Your task to perform on an android device: change notification settings in the gmail app Image 0: 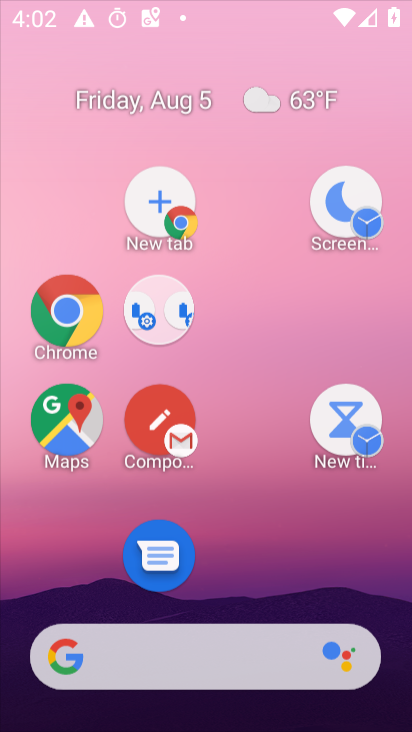
Step 0: click (269, 49)
Your task to perform on an android device: change notification settings in the gmail app Image 1: 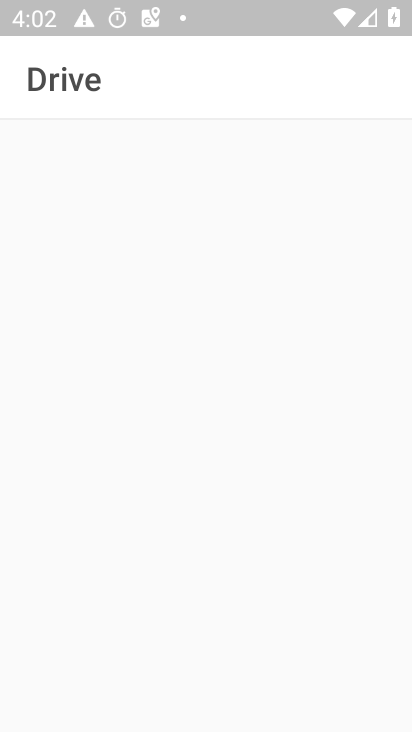
Step 1: press back button
Your task to perform on an android device: change notification settings in the gmail app Image 2: 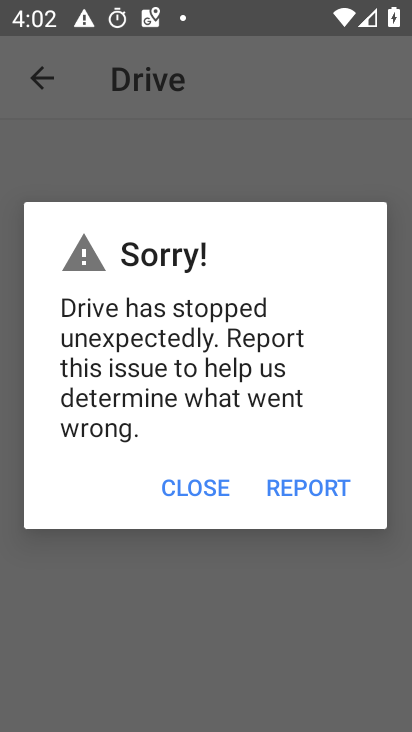
Step 2: press back button
Your task to perform on an android device: change notification settings in the gmail app Image 3: 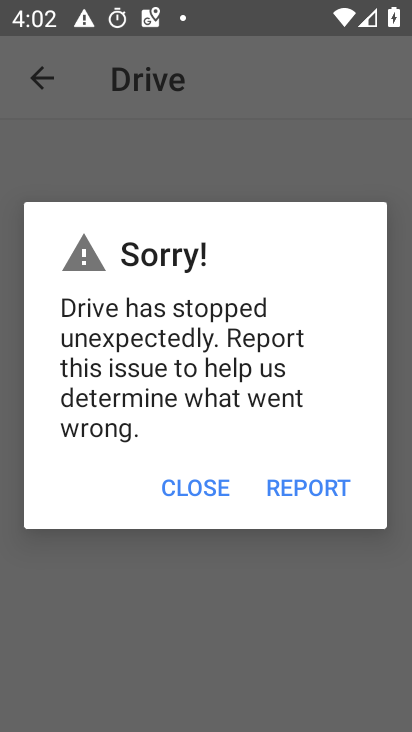
Step 3: click (175, 479)
Your task to perform on an android device: change notification settings in the gmail app Image 4: 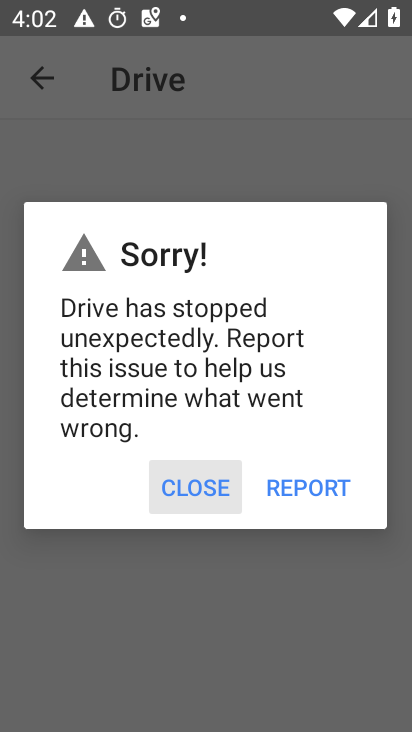
Step 4: click (184, 479)
Your task to perform on an android device: change notification settings in the gmail app Image 5: 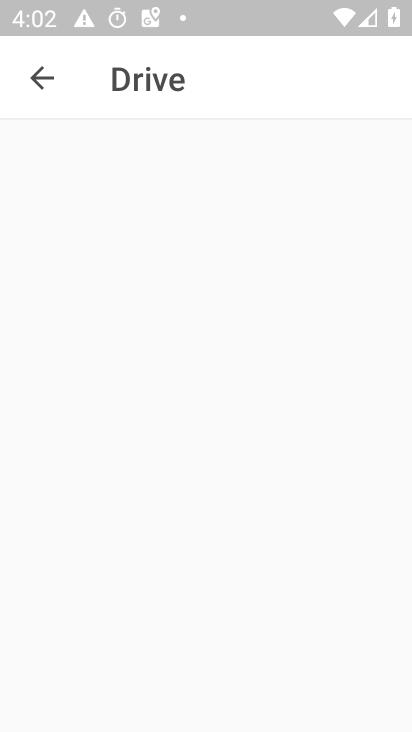
Step 5: click (191, 479)
Your task to perform on an android device: change notification settings in the gmail app Image 6: 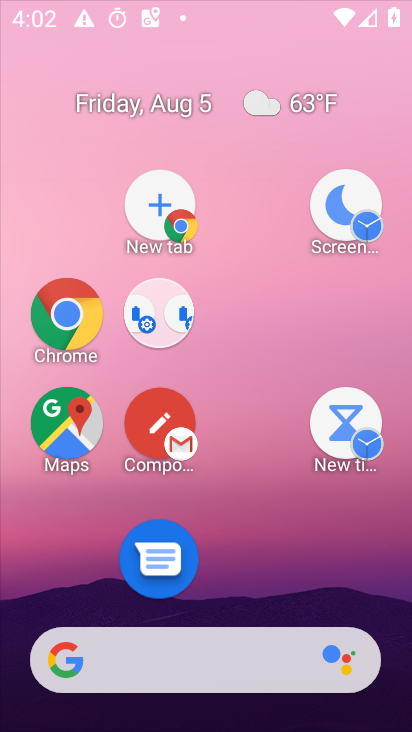
Step 6: click (193, 481)
Your task to perform on an android device: change notification settings in the gmail app Image 7: 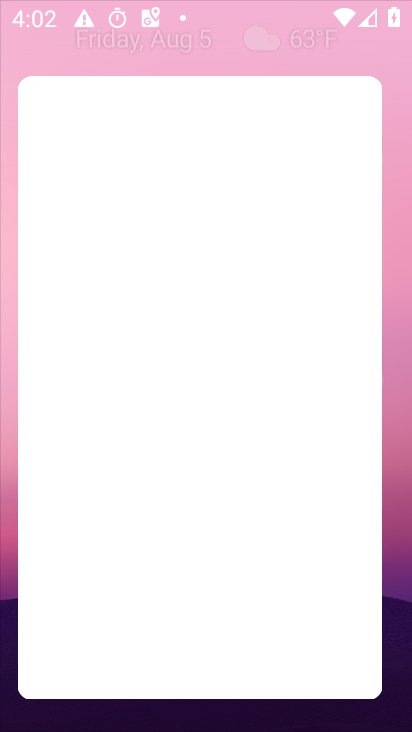
Step 7: drag from (277, 442) to (251, 228)
Your task to perform on an android device: change notification settings in the gmail app Image 8: 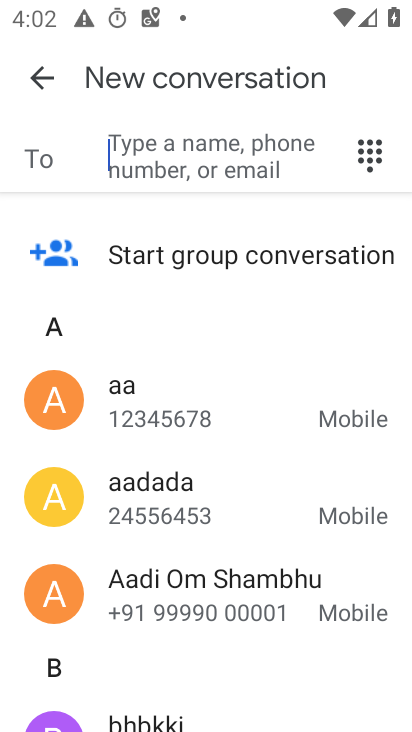
Step 8: press back button
Your task to perform on an android device: change notification settings in the gmail app Image 9: 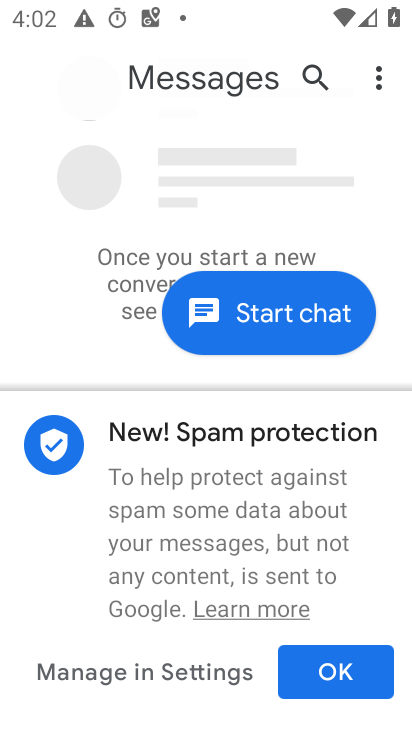
Step 9: press home button
Your task to perform on an android device: change notification settings in the gmail app Image 10: 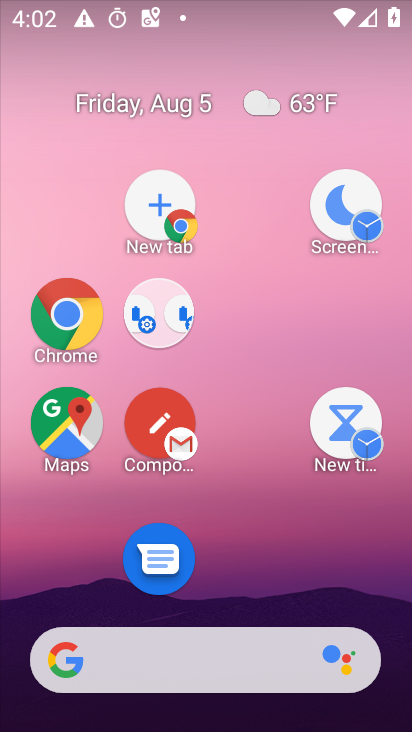
Step 10: drag from (248, 551) to (260, 282)
Your task to perform on an android device: change notification settings in the gmail app Image 11: 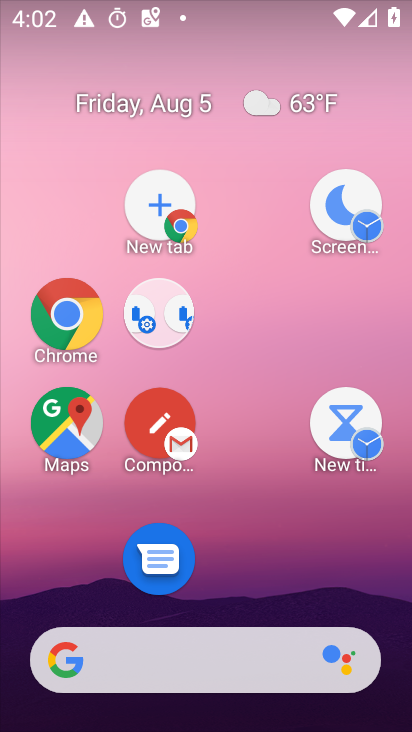
Step 11: drag from (231, 634) to (148, 196)
Your task to perform on an android device: change notification settings in the gmail app Image 12: 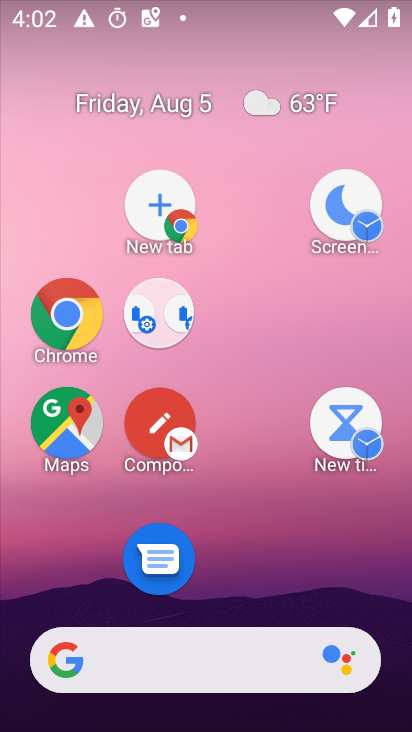
Step 12: drag from (179, 301) to (179, 218)
Your task to perform on an android device: change notification settings in the gmail app Image 13: 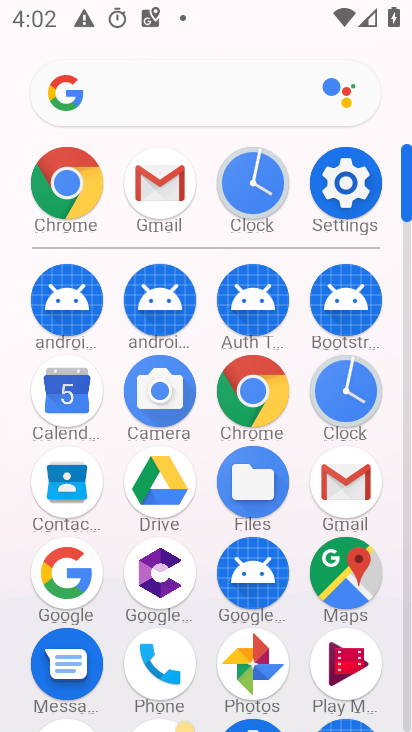
Step 13: drag from (279, 493) to (279, 245)
Your task to perform on an android device: change notification settings in the gmail app Image 14: 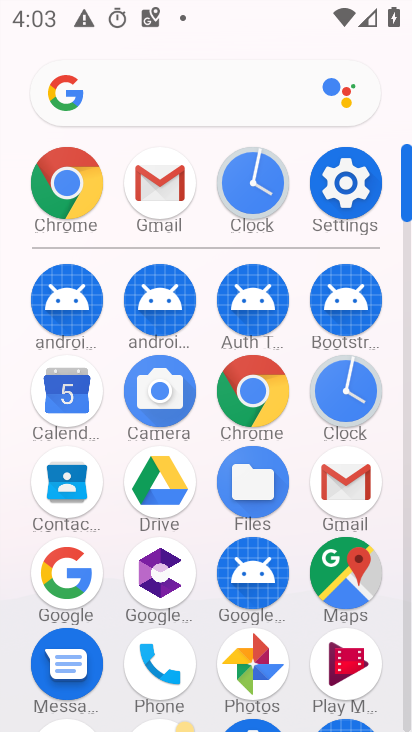
Step 14: click (143, 197)
Your task to perform on an android device: change notification settings in the gmail app Image 15: 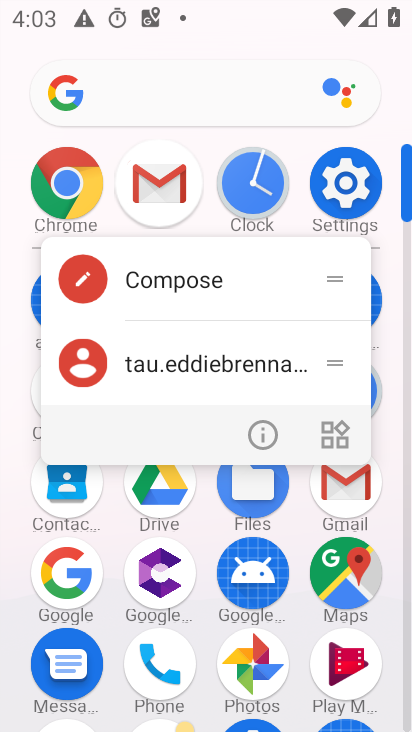
Step 15: click (144, 198)
Your task to perform on an android device: change notification settings in the gmail app Image 16: 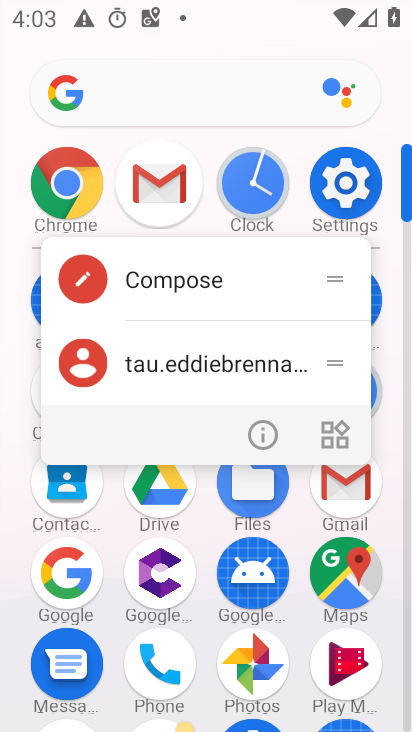
Step 16: click (153, 191)
Your task to perform on an android device: change notification settings in the gmail app Image 17: 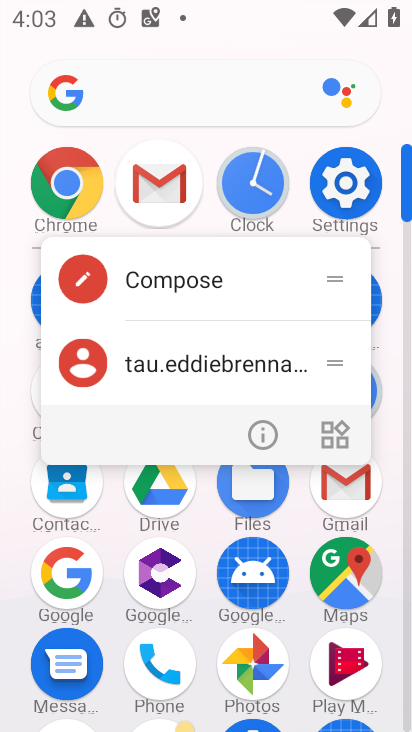
Step 17: click (158, 184)
Your task to perform on an android device: change notification settings in the gmail app Image 18: 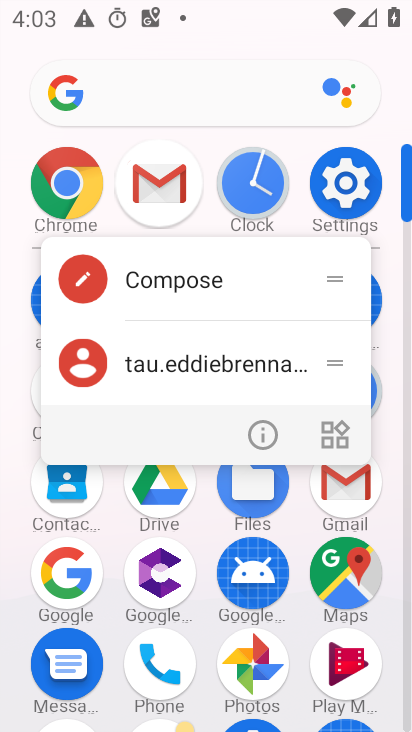
Step 18: click (150, 193)
Your task to perform on an android device: change notification settings in the gmail app Image 19: 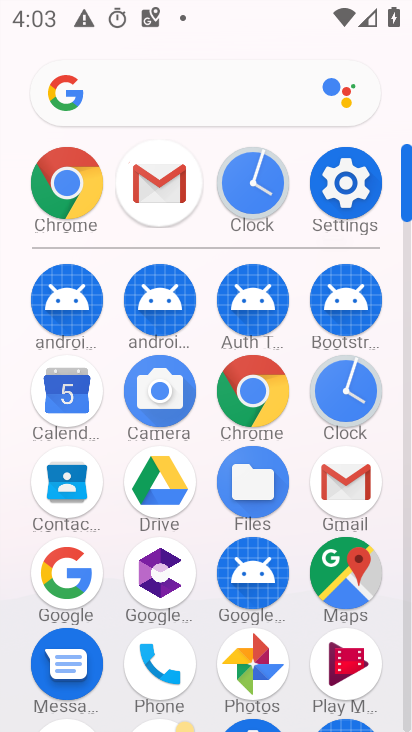
Step 19: click (152, 200)
Your task to perform on an android device: change notification settings in the gmail app Image 20: 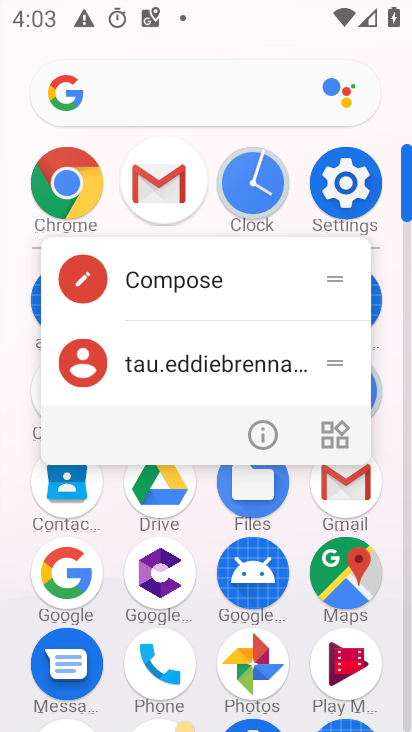
Step 20: click (170, 183)
Your task to perform on an android device: change notification settings in the gmail app Image 21: 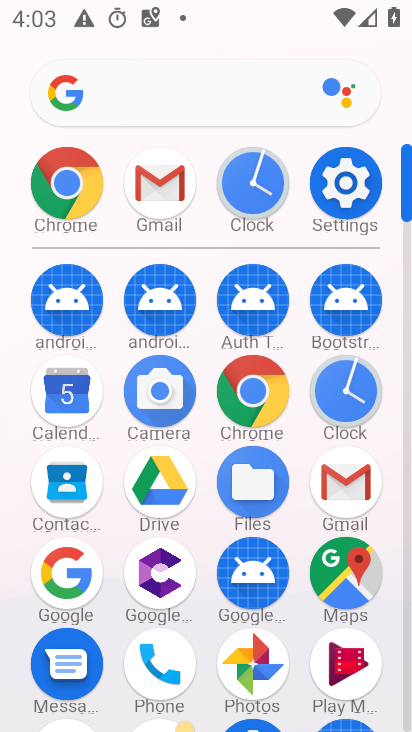
Step 21: click (156, 192)
Your task to perform on an android device: change notification settings in the gmail app Image 22: 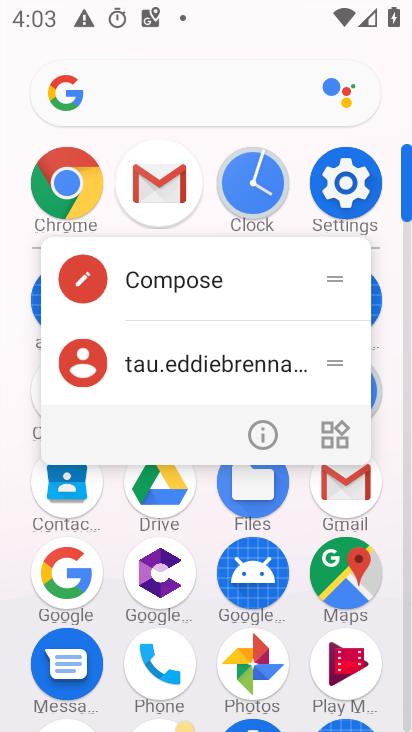
Step 22: click (158, 189)
Your task to perform on an android device: change notification settings in the gmail app Image 23: 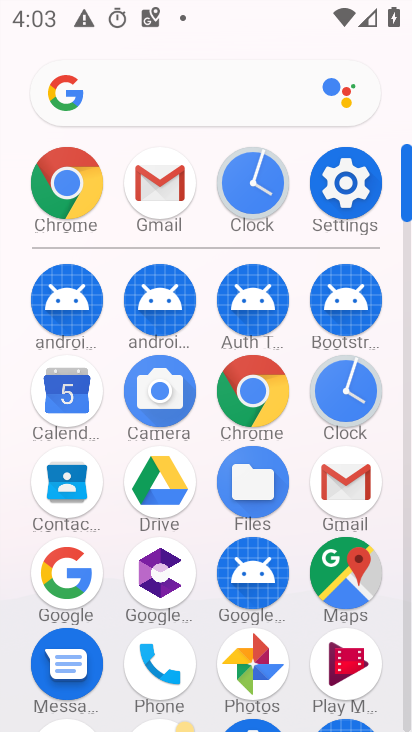
Step 23: click (158, 189)
Your task to perform on an android device: change notification settings in the gmail app Image 24: 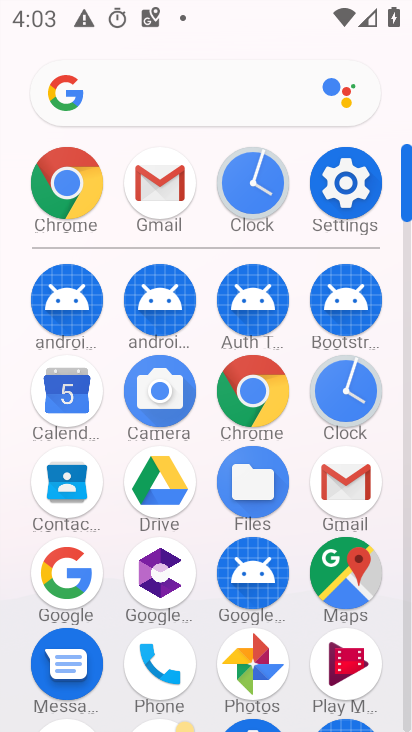
Step 24: click (158, 189)
Your task to perform on an android device: change notification settings in the gmail app Image 25: 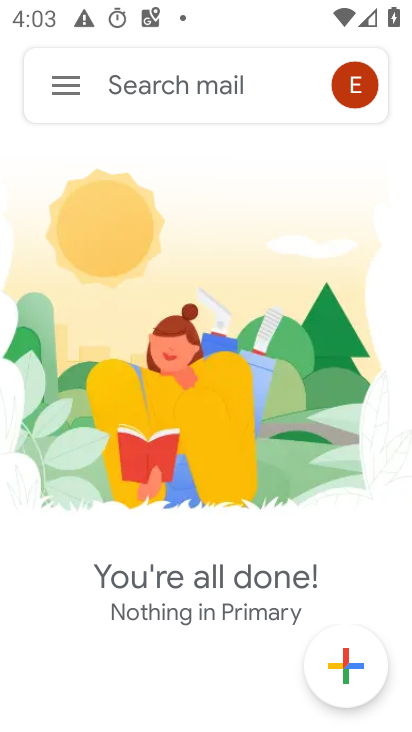
Step 25: click (54, 90)
Your task to perform on an android device: change notification settings in the gmail app Image 26: 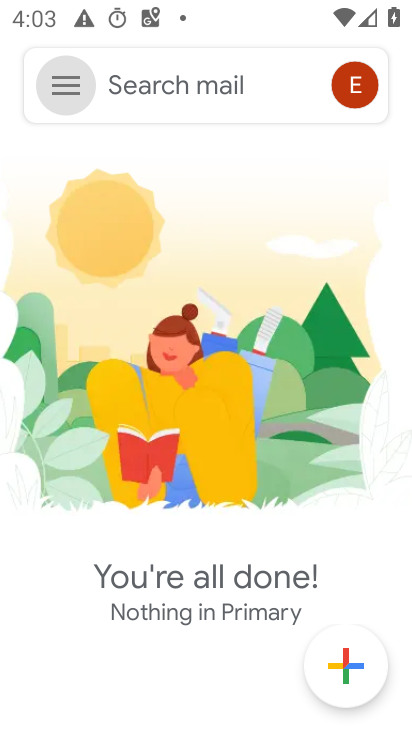
Step 26: drag from (73, 114) to (129, 550)
Your task to perform on an android device: change notification settings in the gmail app Image 27: 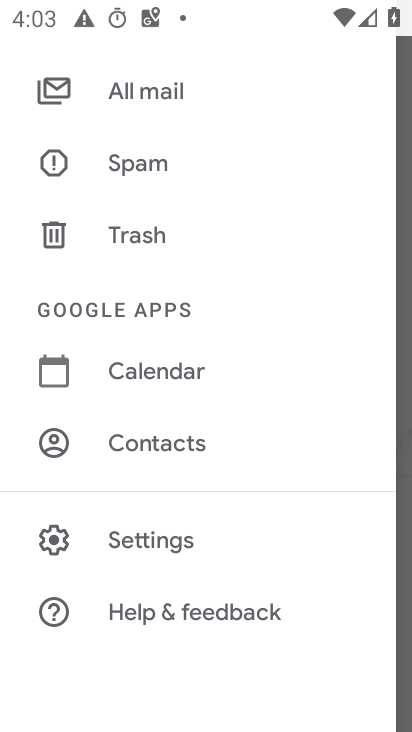
Step 27: click (145, 538)
Your task to perform on an android device: change notification settings in the gmail app Image 28: 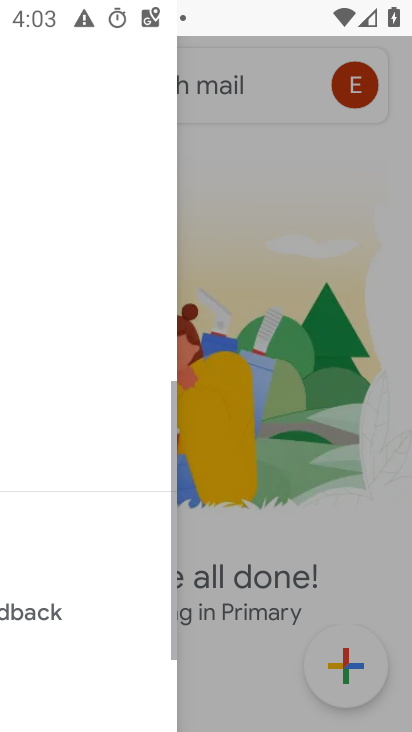
Step 28: click (145, 537)
Your task to perform on an android device: change notification settings in the gmail app Image 29: 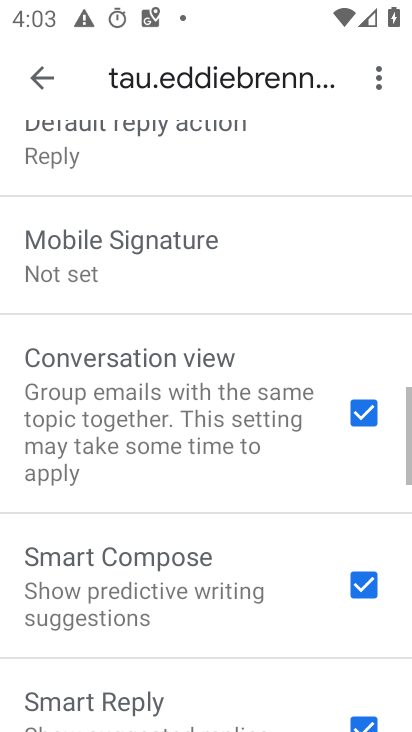
Step 29: drag from (141, 576) to (115, 130)
Your task to perform on an android device: change notification settings in the gmail app Image 30: 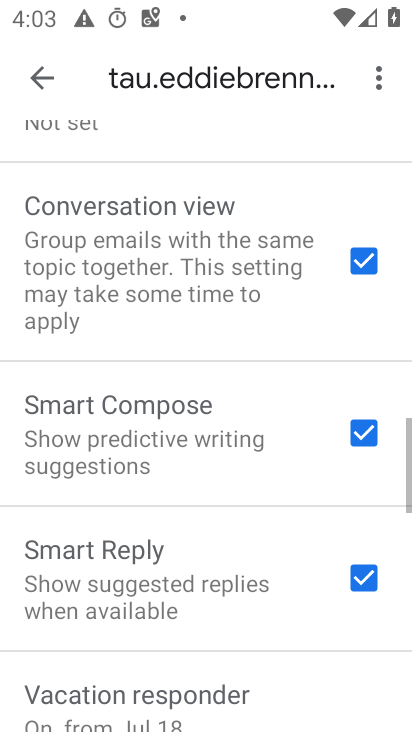
Step 30: drag from (166, 456) to (161, 142)
Your task to perform on an android device: change notification settings in the gmail app Image 31: 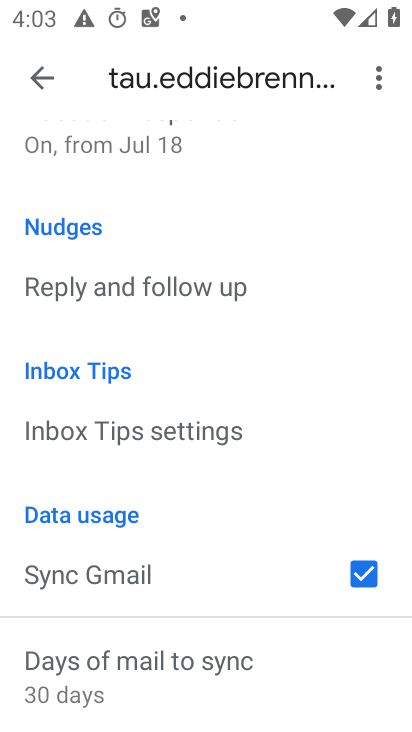
Step 31: click (114, 569)
Your task to perform on an android device: change notification settings in the gmail app Image 32: 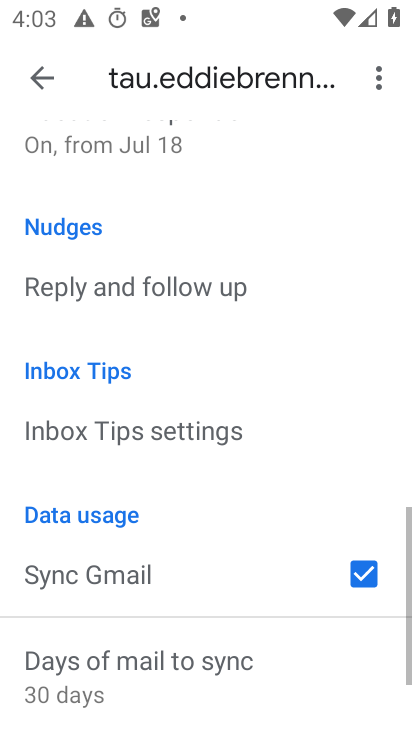
Step 32: click (110, 545)
Your task to perform on an android device: change notification settings in the gmail app Image 33: 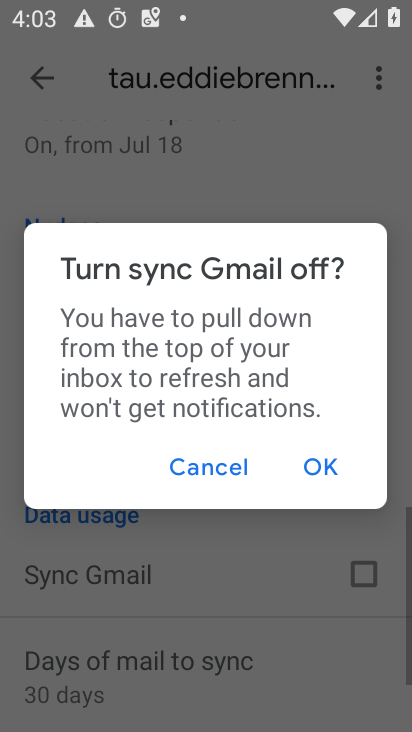
Step 33: drag from (79, 285) to (123, 549)
Your task to perform on an android device: change notification settings in the gmail app Image 34: 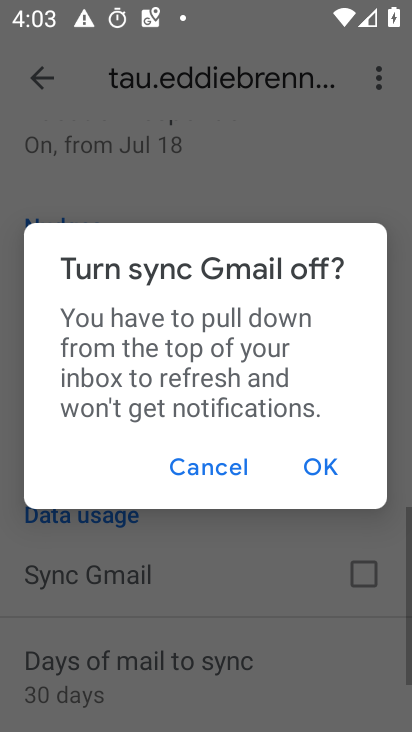
Step 34: click (123, 336)
Your task to perform on an android device: change notification settings in the gmail app Image 35: 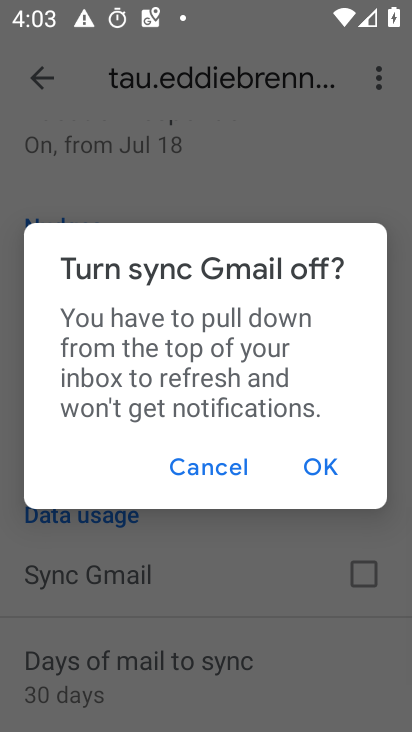
Step 35: click (206, 474)
Your task to perform on an android device: change notification settings in the gmail app Image 36: 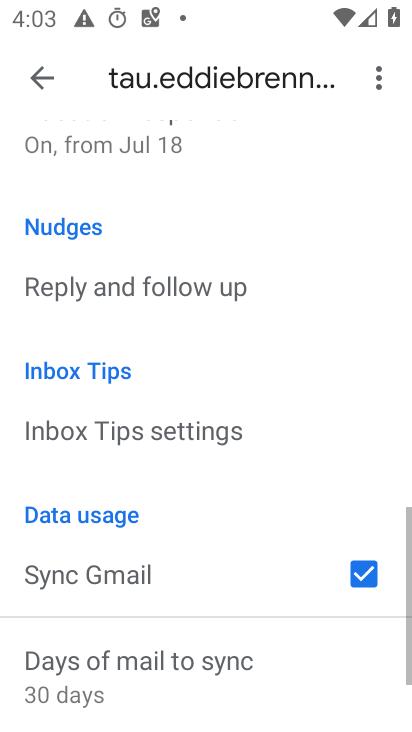
Step 36: drag from (137, 237) to (171, 612)
Your task to perform on an android device: change notification settings in the gmail app Image 37: 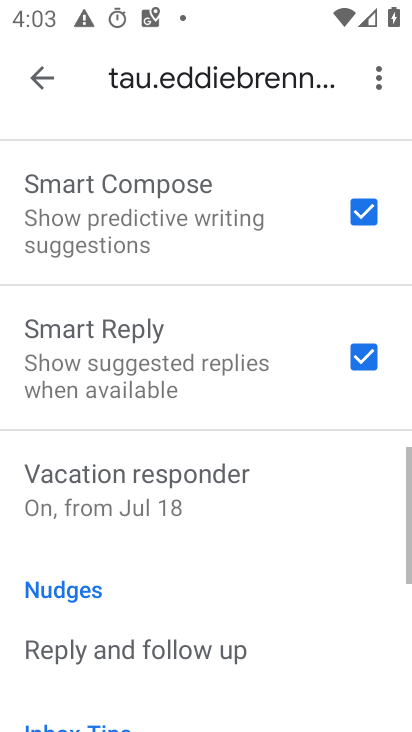
Step 37: drag from (102, 265) to (151, 501)
Your task to perform on an android device: change notification settings in the gmail app Image 38: 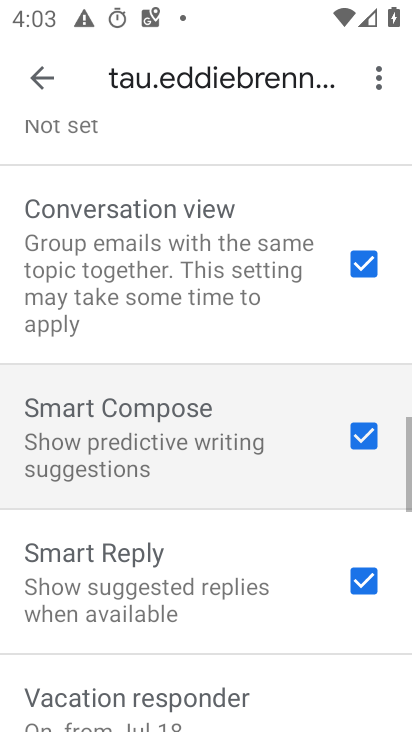
Step 38: drag from (171, 241) to (193, 547)
Your task to perform on an android device: change notification settings in the gmail app Image 39: 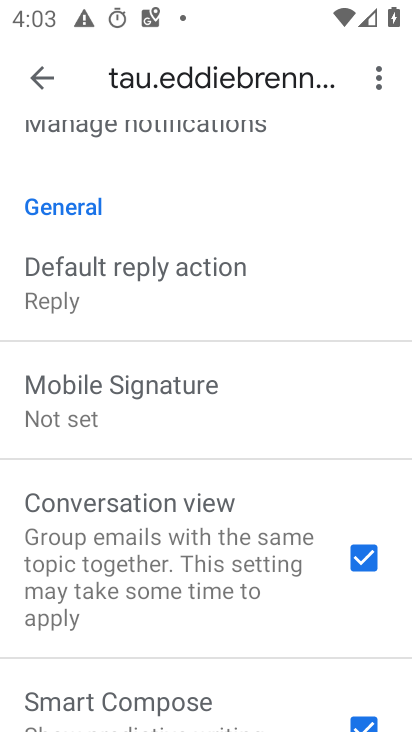
Step 39: drag from (127, 575) to (111, 304)
Your task to perform on an android device: change notification settings in the gmail app Image 40: 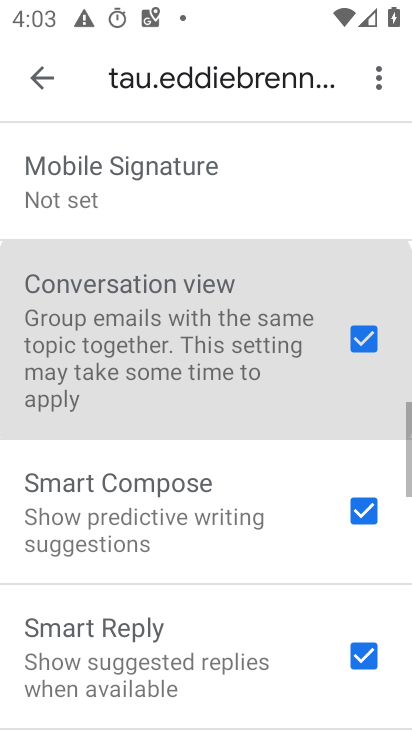
Step 40: drag from (146, 557) to (142, 389)
Your task to perform on an android device: change notification settings in the gmail app Image 41: 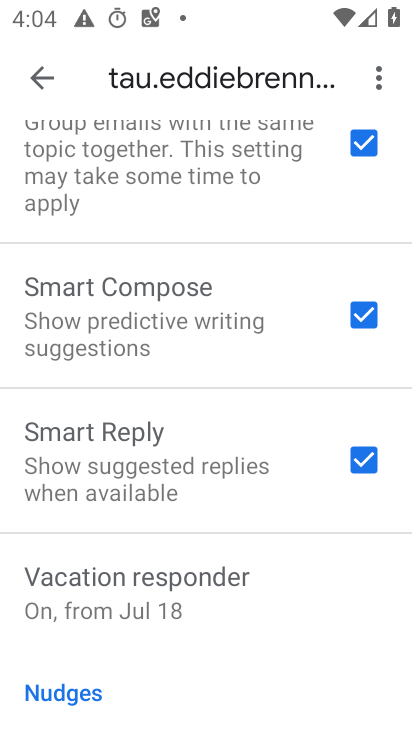
Step 41: drag from (128, 241) to (155, 556)
Your task to perform on an android device: change notification settings in the gmail app Image 42: 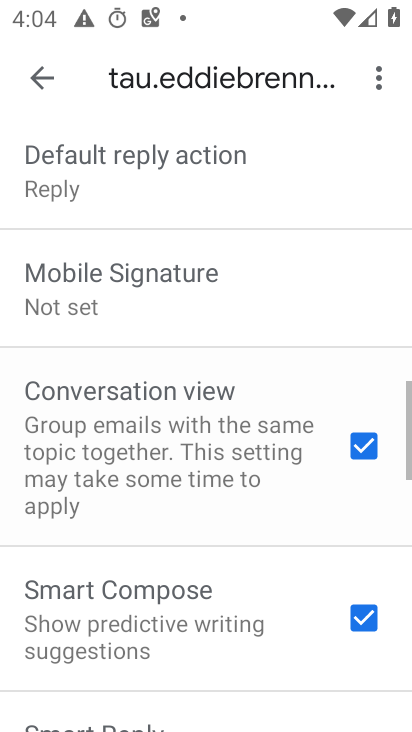
Step 42: drag from (82, 313) to (142, 663)
Your task to perform on an android device: change notification settings in the gmail app Image 43: 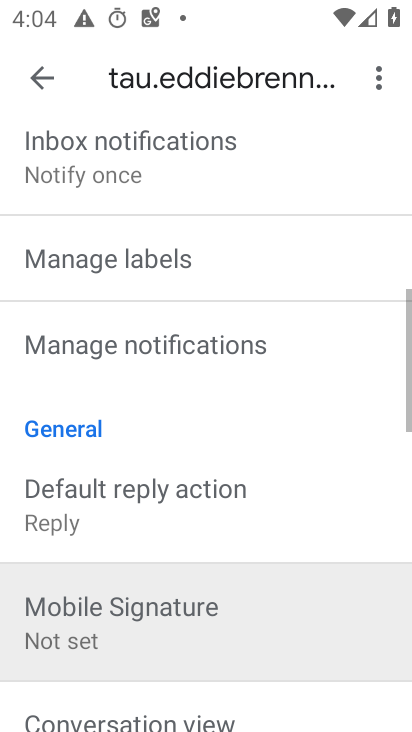
Step 43: drag from (99, 319) to (146, 579)
Your task to perform on an android device: change notification settings in the gmail app Image 44: 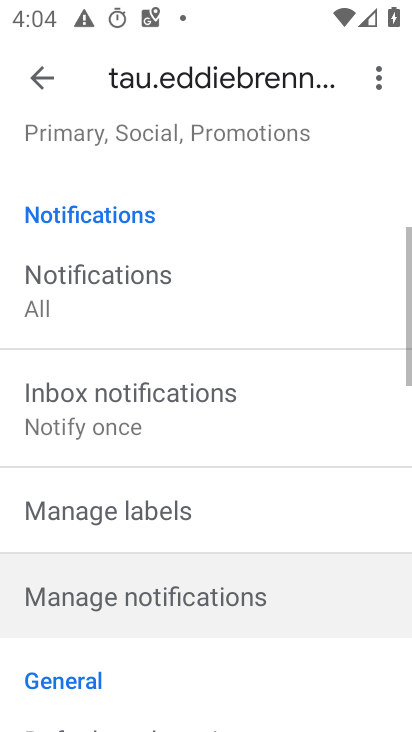
Step 44: drag from (146, 265) to (248, 580)
Your task to perform on an android device: change notification settings in the gmail app Image 45: 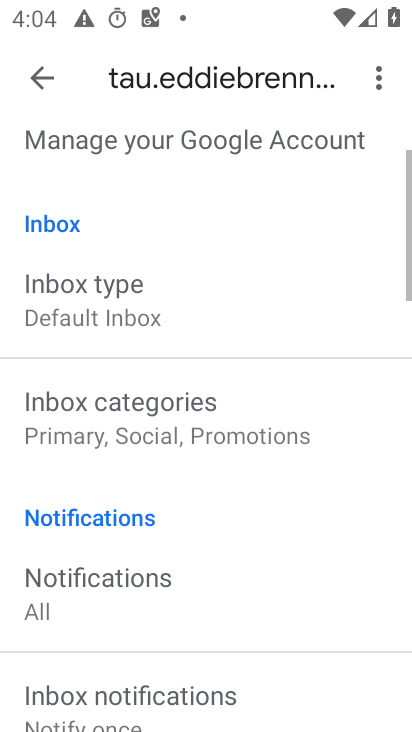
Step 45: drag from (150, 279) to (179, 616)
Your task to perform on an android device: change notification settings in the gmail app Image 46: 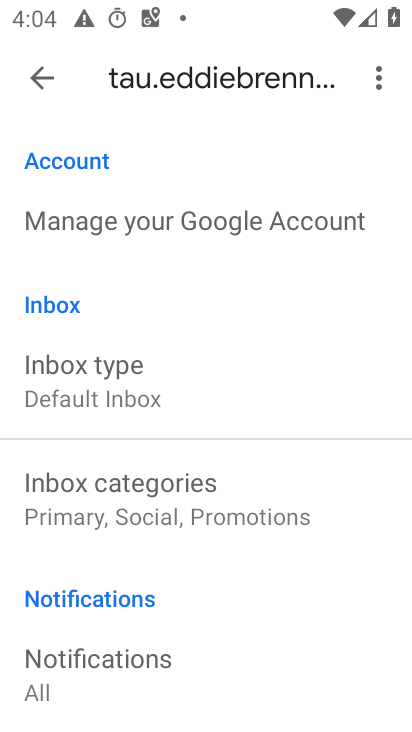
Step 46: drag from (96, 274) to (113, 623)
Your task to perform on an android device: change notification settings in the gmail app Image 47: 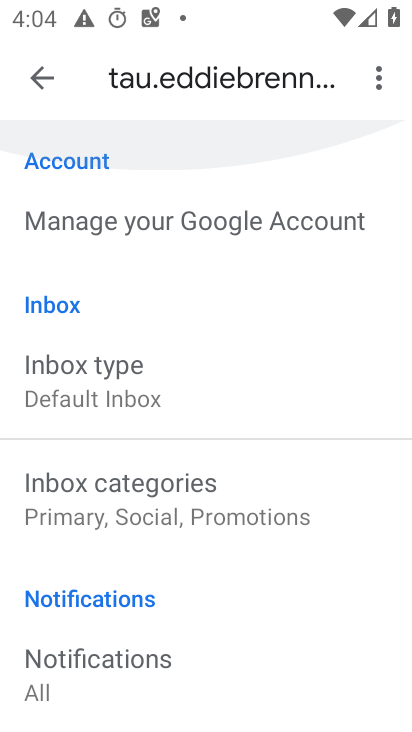
Step 47: drag from (102, 311) to (171, 512)
Your task to perform on an android device: change notification settings in the gmail app Image 48: 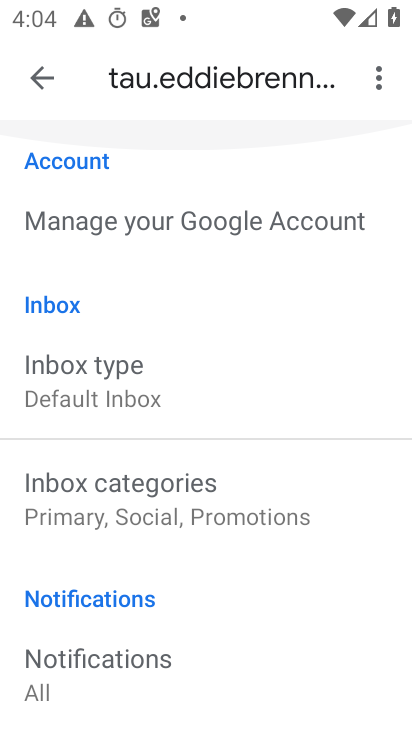
Step 48: drag from (171, 318) to (201, 593)
Your task to perform on an android device: change notification settings in the gmail app Image 49: 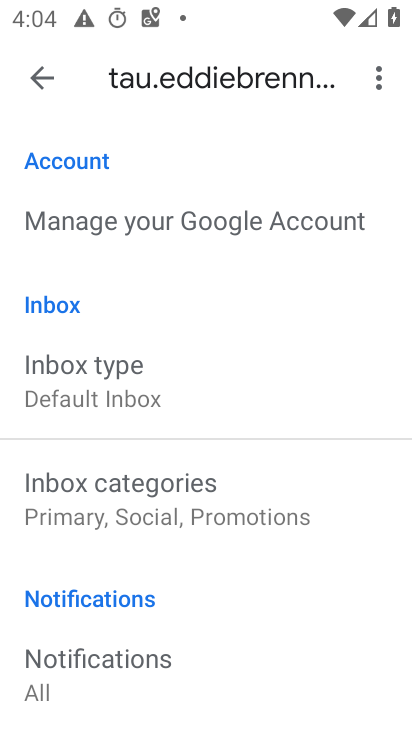
Step 49: drag from (116, 668) to (138, 460)
Your task to perform on an android device: change notification settings in the gmail app Image 50: 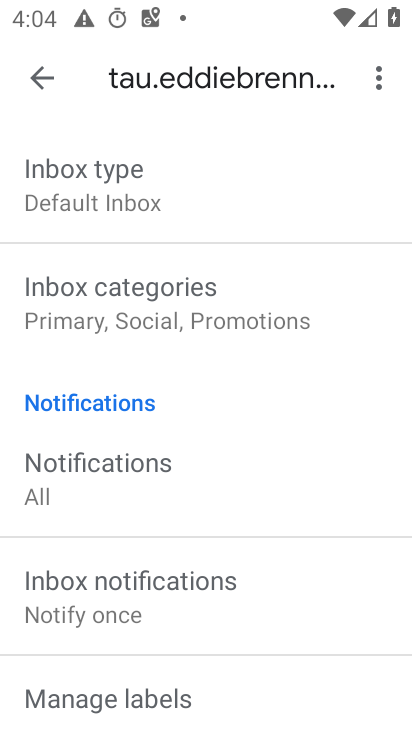
Step 50: click (85, 487)
Your task to perform on an android device: change notification settings in the gmail app Image 51: 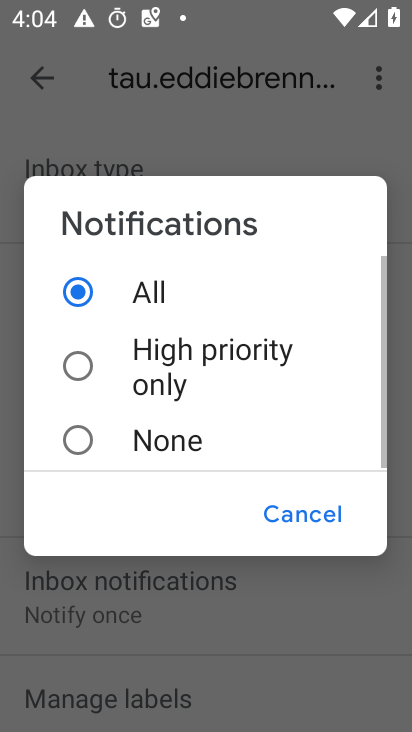
Step 51: click (70, 348)
Your task to perform on an android device: change notification settings in the gmail app Image 52: 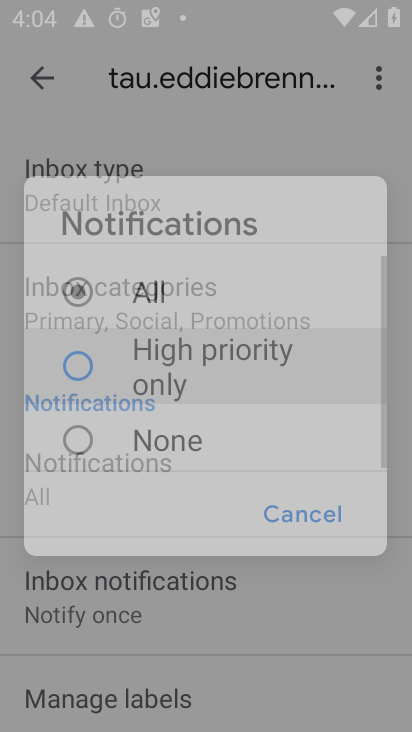
Step 52: click (70, 360)
Your task to perform on an android device: change notification settings in the gmail app Image 53: 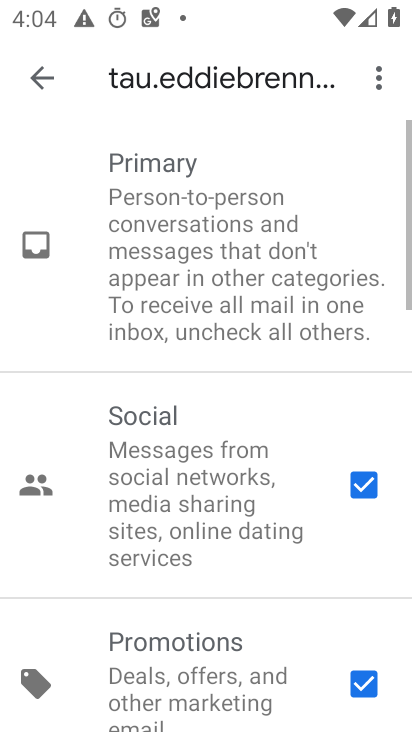
Step 53: task complete